Your task to perform on an android device: open sync settings in chrome Image 0: 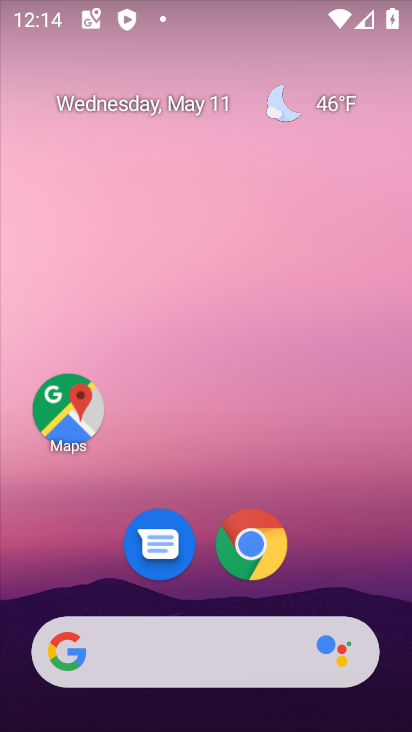
Step 0: click (249, 538)
Your task to perform on an android device: open sync settings in chrome Image 1: 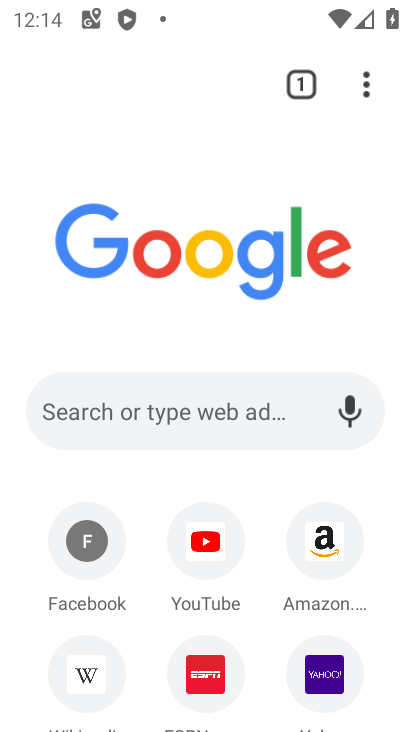
Step 1: click (365, 95)
Your task to perform on an android device: open sync settings in chrome Image 2: 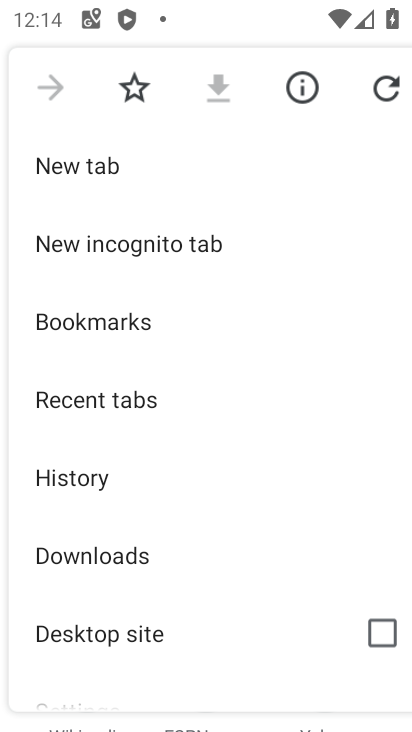
Step 2: drag from (215, 613) to (270, 216)
Your task to perform on an android device: open sync settings in chrome Image 3: 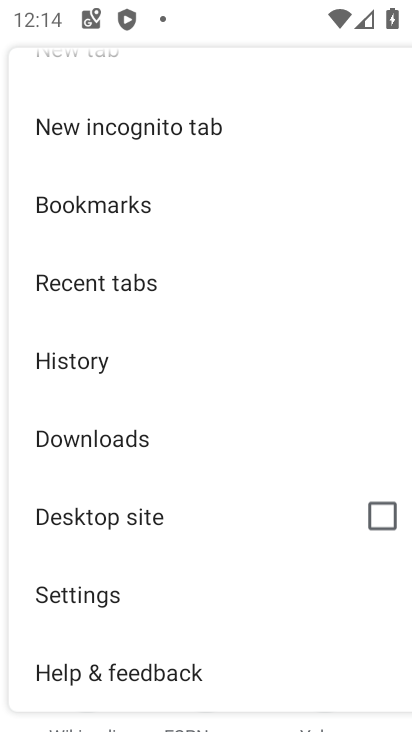
Step 3: click (89, 598)
Your task to perform on an android device: open sync settings in chrome Image 4: 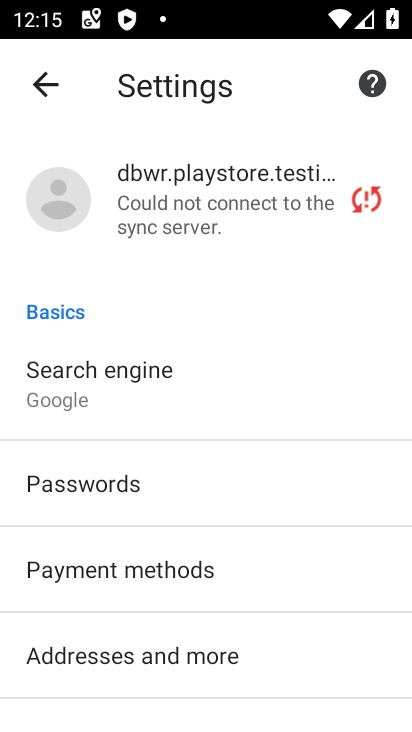
Step 4: click (145, 186)
Your task to perform on an android device: open sync settings in chrome Image 5: 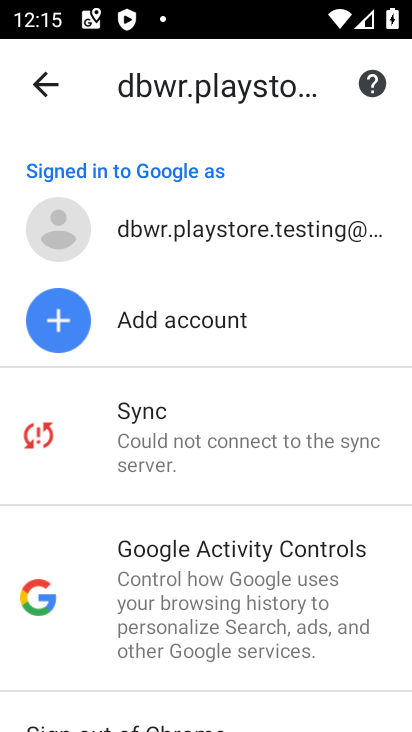
Step 5: click (142, 437)
Your task to perform on an android device: open sync settings in chrome Image 6: 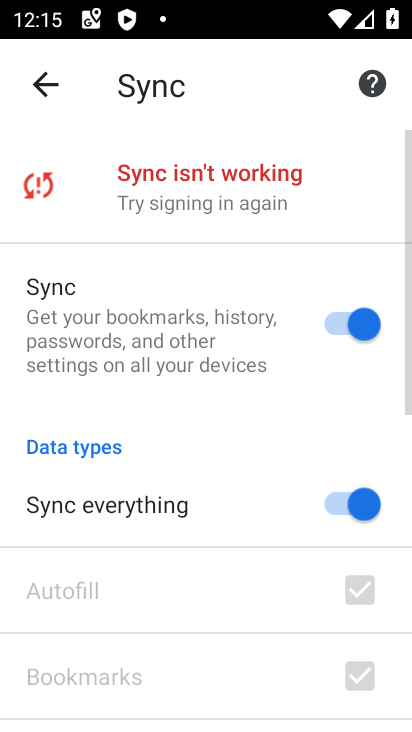
Step 6: task complete